Your task to perform on an android device: empty trash in the gmail app Image 0: 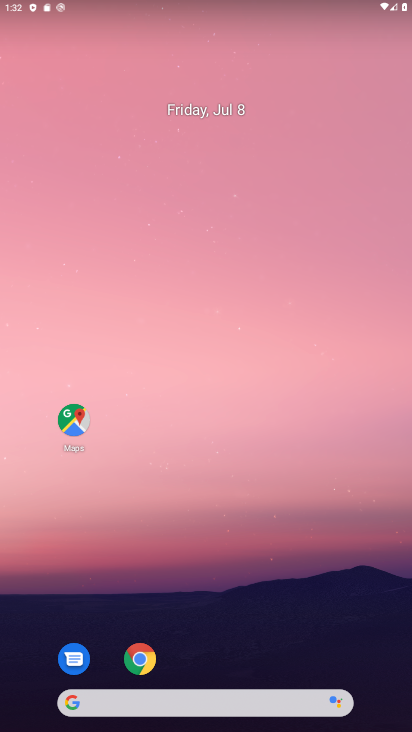
Step 0: drag from (252, 562) to (142, 139)
Your task to perform on an android device: empty trash in the gmail app Image 1: 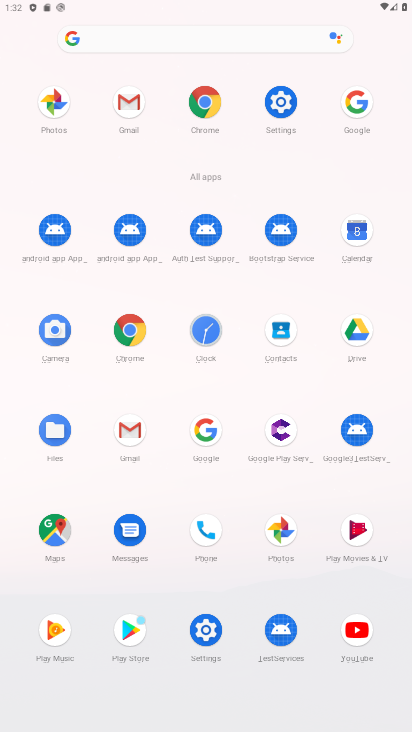
Step 1: click (132, 92)
Your task to perform on an android device: empty trash in the gmail app Image 2: 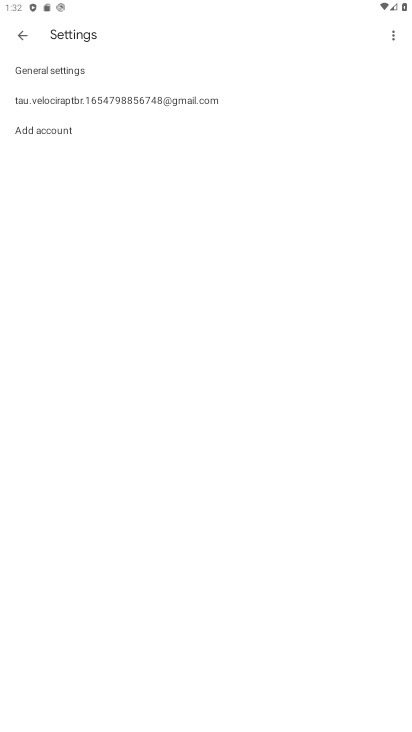
Step 2: click (61, 97)
Your task to perform on an android device: empty trash in the gmail app Image 3: 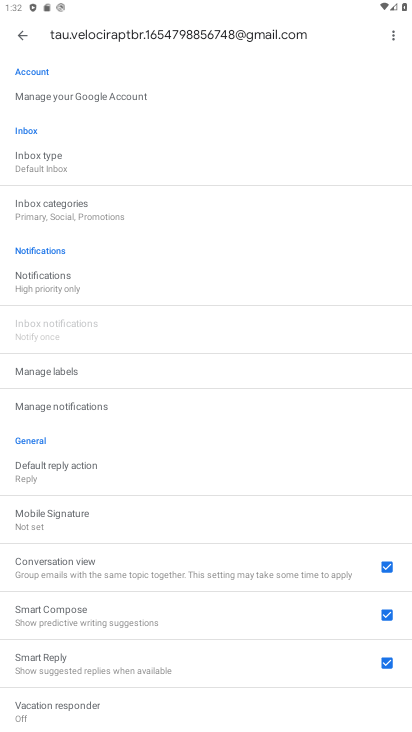
Step 3: click (21, 36)
Your task to perform on an android device: empty trash in the gmail app Image 4: 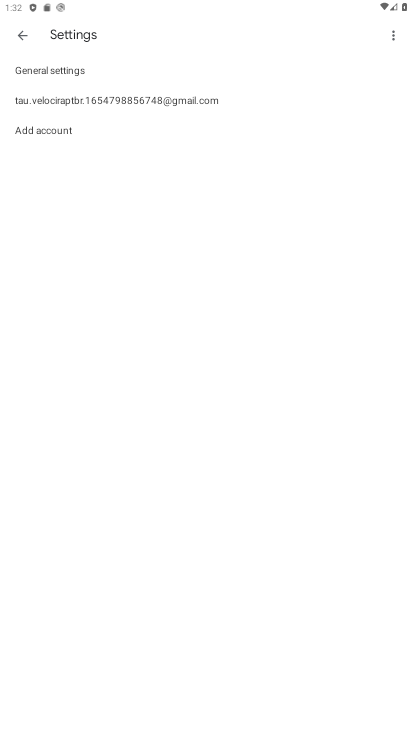
Step 4: click (21, 36)
Your task to perform on an android device: empty trash in the gmail app Image 5: 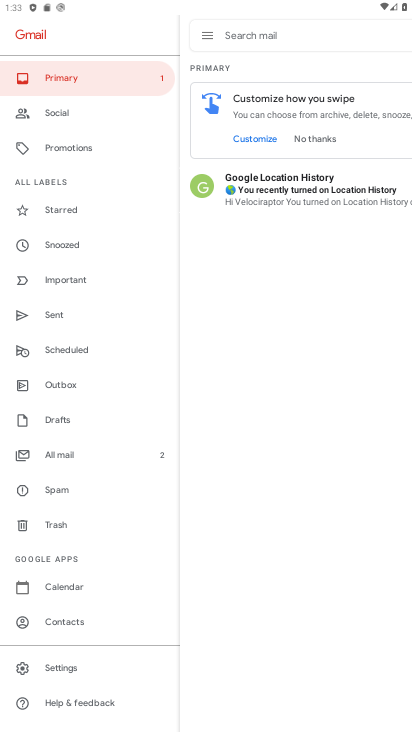
Step 5: click (60, 525)
Your task to perform on an android device: empty trash in the gmail app Image 6: 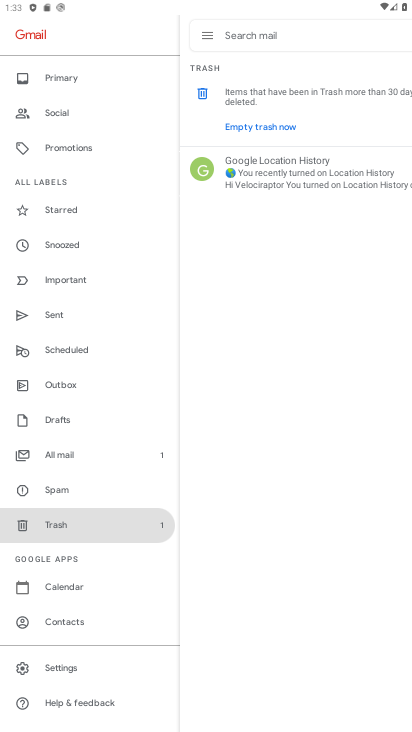
Step 6: click (243, 126)
Your task to perform on an android device: empty trash in the gmail app Image 7: 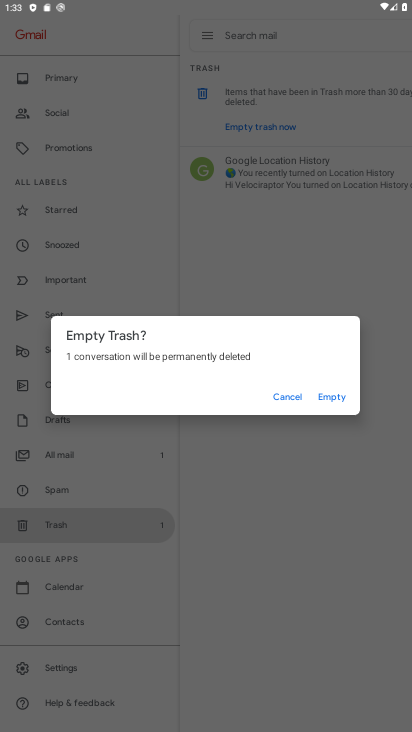
Step 7: click (340, 395)
Your task to perform on an android device: empty trash in the gmail app Image 8: 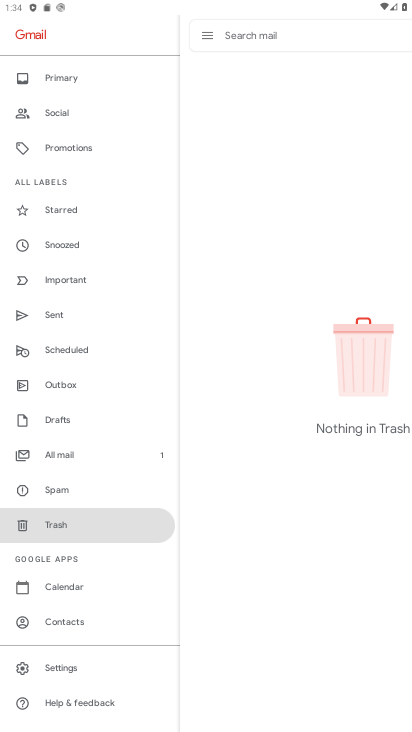
Step 8: task complete